Your task to perform on an android device: toggle show notifications on the lock screen Image 0: 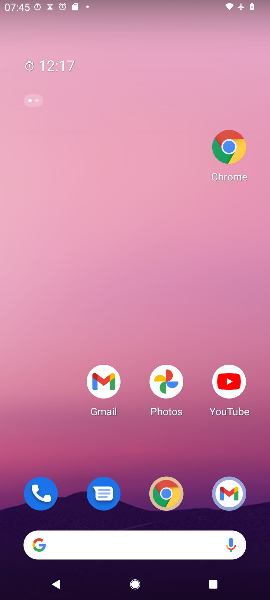
Step 0: press home button
Your task to perform on an android device: toggle show notifications on the lock screen Image 1: 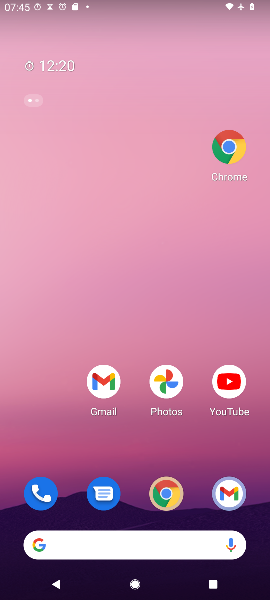
Step 1: drag from (41, 422) to (54, 156)
Your task to perform on an android device: toggle show notifications on the lock screen Image 2: 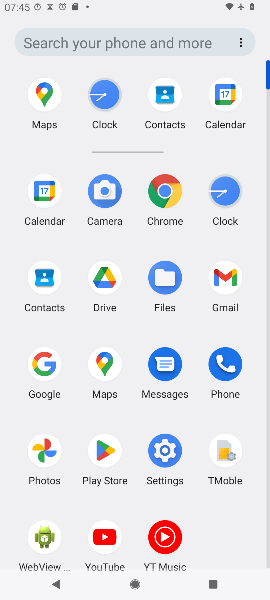
Step 2: click (162, 448)
Your task to perform on an android device: toggle show notifications on the lock screen Image 3: 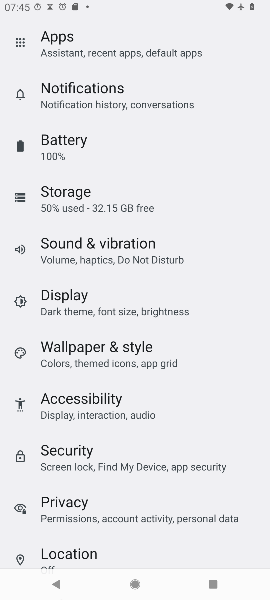
Step 3: drag from (100, 130) to (104, 313)
Your task to perform on an android device: toggle show notifications on the lock screen Image 4: 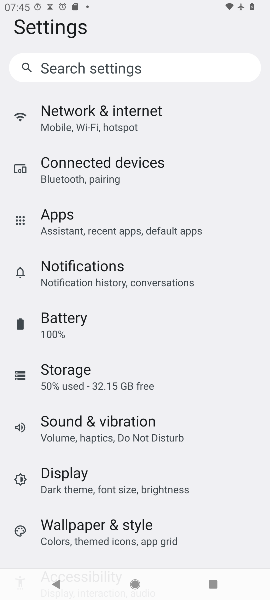
Step 4: click (94, 281)
Your task to perform on an android device: toggle show notifications on the lock screen Image 5: 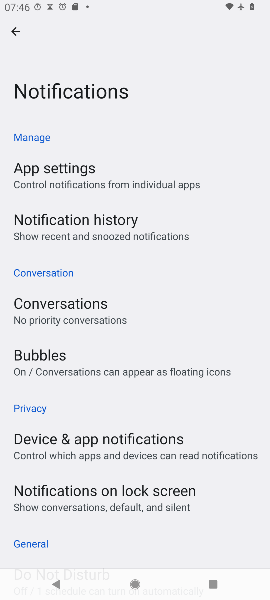
Step 5: click (95, 492)
Your task to perform on an android device: toggle show notifications on the lock screen Image 6: 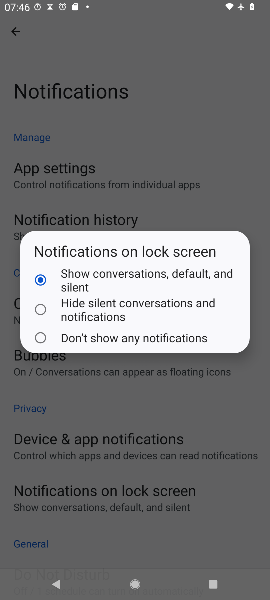
Step 6: task complete